Your task to perform on an android device: Open Google Maps and go to "Timeline" Image 0: 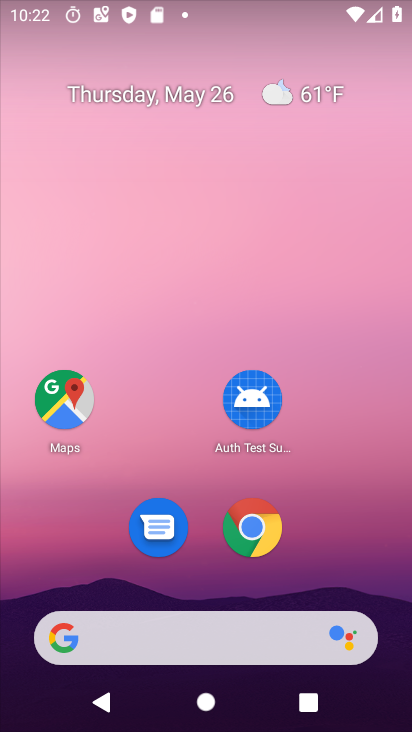
Step 0: drag from (350, 597) to (403, 37)
Your task to perform on an android device: Open Google Maps and go to "Timeline" Image 1: 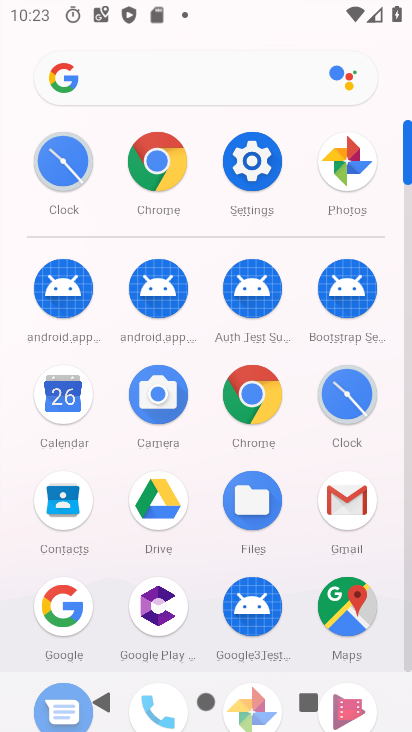
Step 1: click (362, 621)
Your task to perform on an android device: Open Google Maps and go to "Timeline" Image 2: 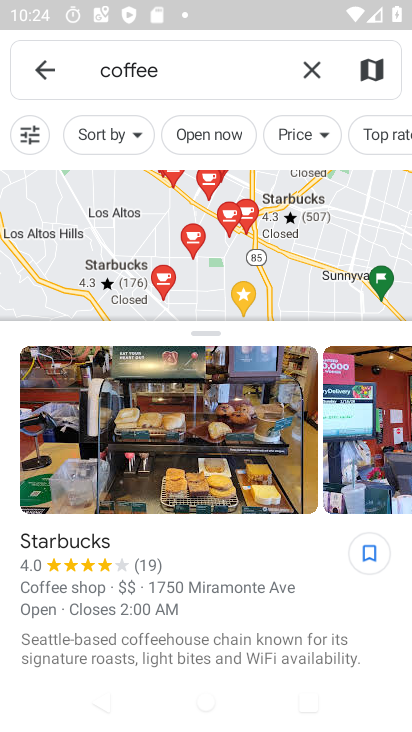
Step 2: click (50, 73)
Your task to perform on an android device: Open Google Maps and go to "Timeline" Image 3: 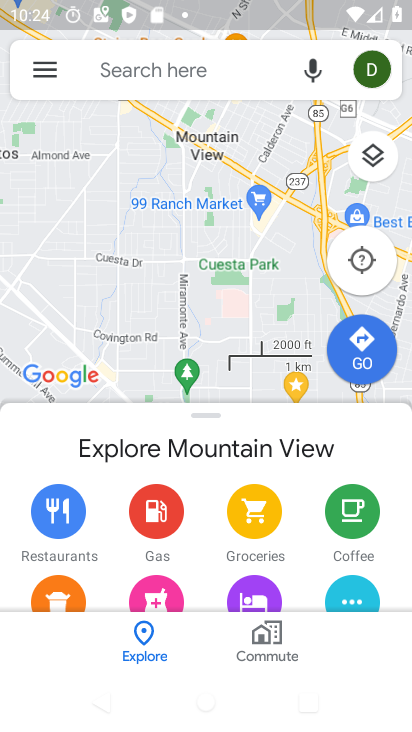
Step 3: click (36, 76)
Your task to perform on an android device: Open Google Maps and go to "Timeline" Image 4: 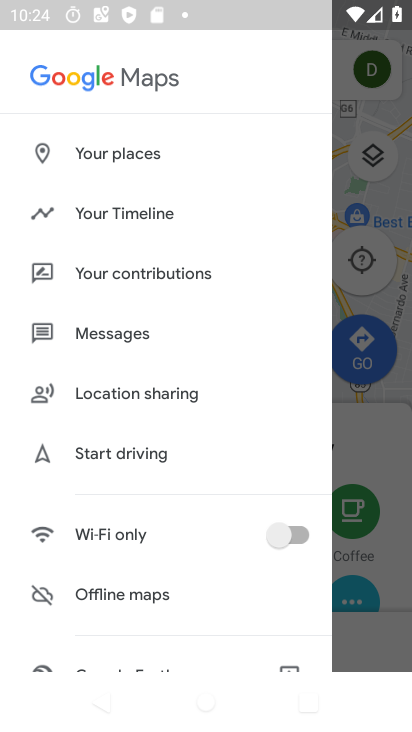
Step 4: click (136, 209)
Your task to perform on an android device: Open Google Maps and go to "Timeline" Image 5: 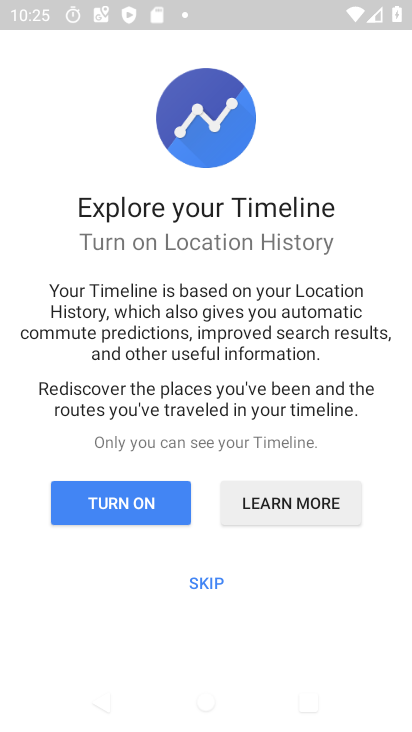
Step 5: task complete